Your task to perform on an android device: Is it going to rain this weekend? Image 0: 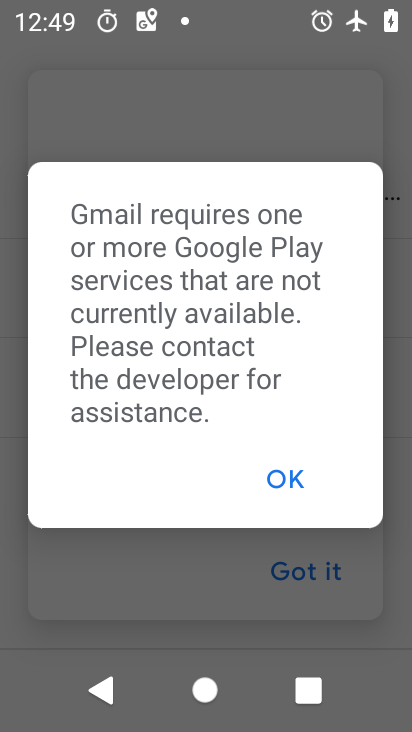
Step 0: press home button
Your task to perform on an android device: Is it going to rain this weekend? Image 1: 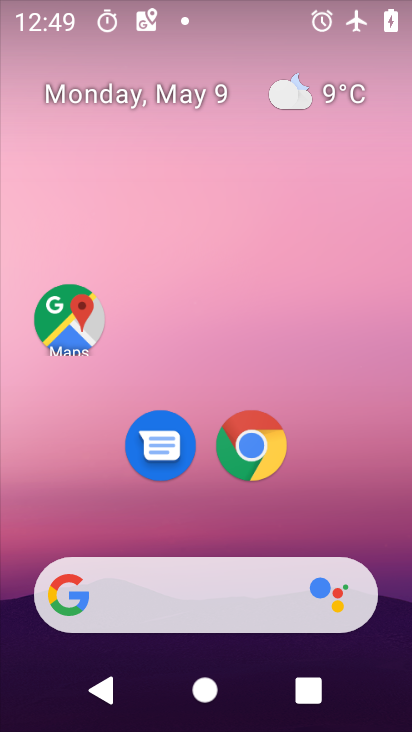
Step 1: click (342, 90)
Your task to perform on an android device: Is it going to rain this weekend? Image 2: 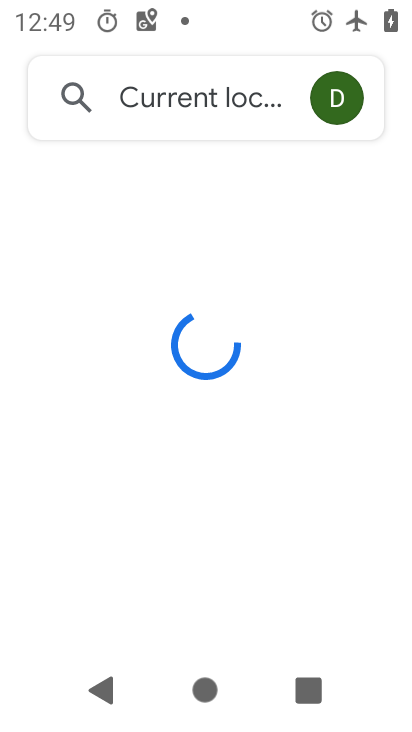
Step 2: task complete